Your task to perform on an android device: Open the web browser Image 0: 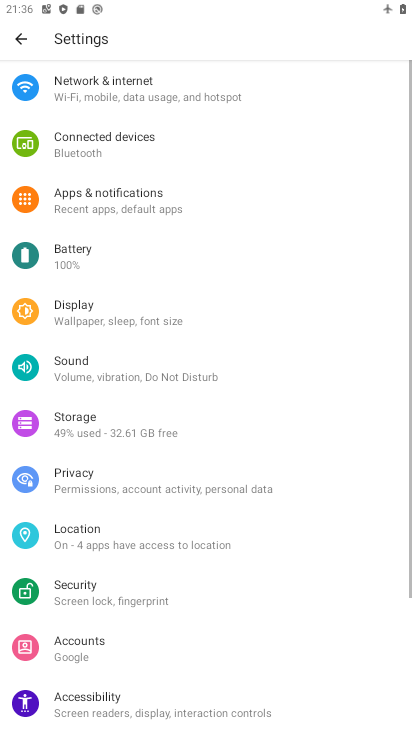
Step 0: press home button
Your task to perform on an android device: Open the web browser Image 1: 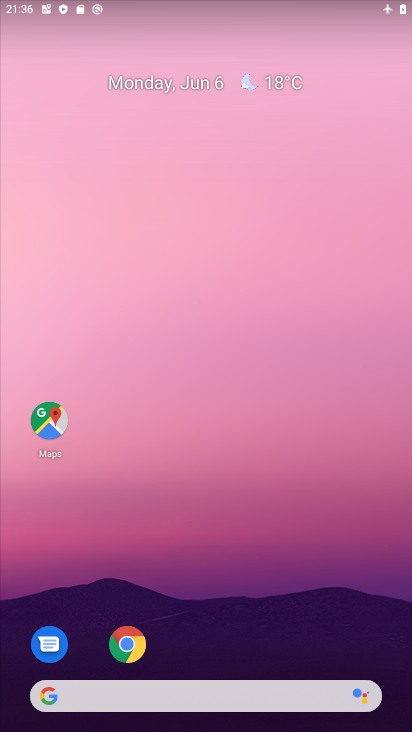
Step 1: drag from (290, 586) to (265, 194)
Your task to perform on an android device: Open the web browser Image 2: 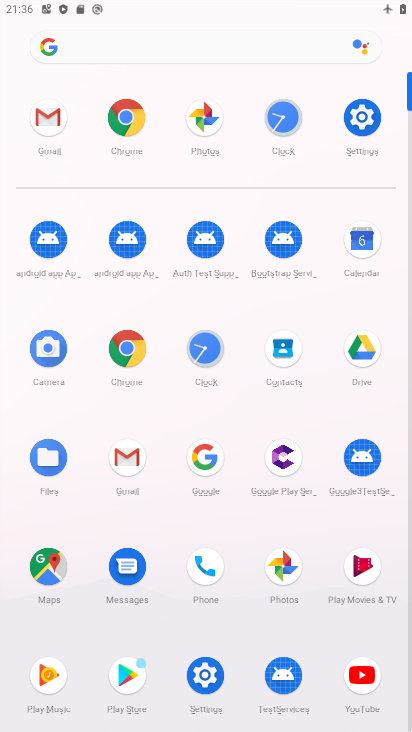
Step 2: click (119, 344)
Your task to perform on an android device: Open the web browser Image 3: 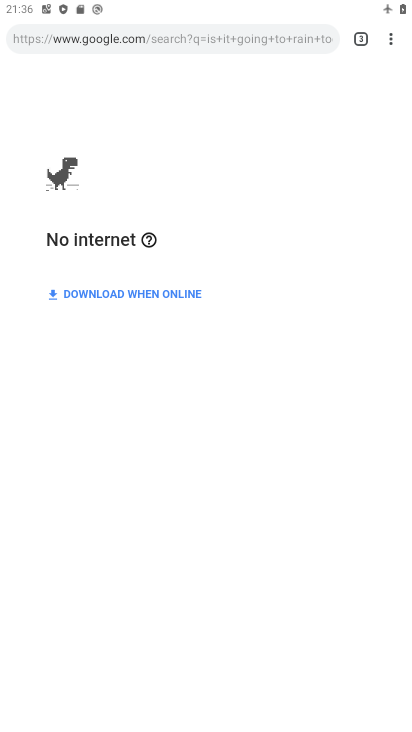
Step 3: task complete